Your task to perform on an android device: toggle sleep mode Image 0: 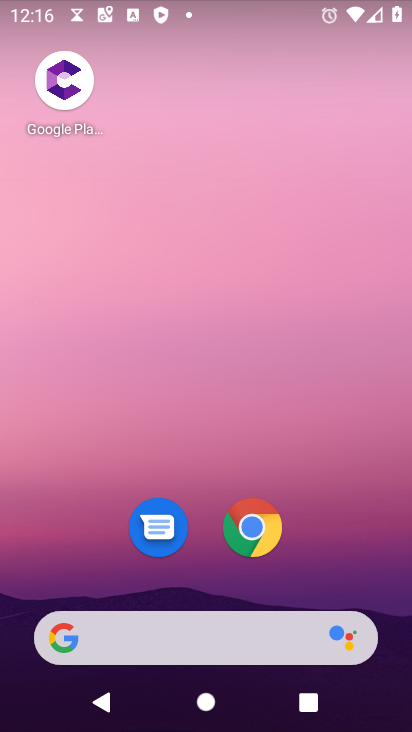
Step 0: drag from (312, 588) to (312, 77)
Your task to perform on an android device: toggle sleep mode Image 1: 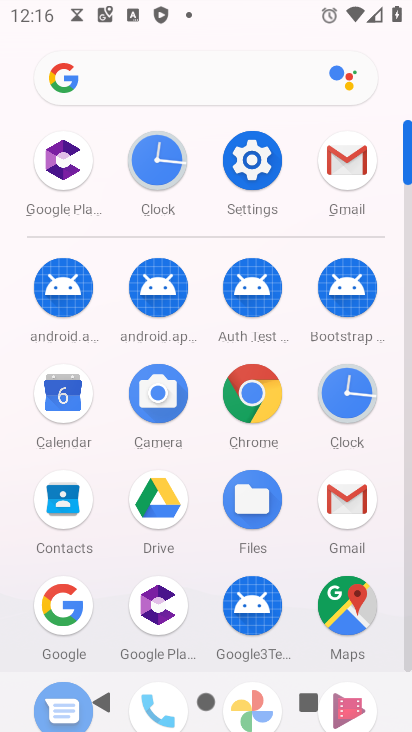
Step 1: click (242, 156)
Your task to perform on an android device: toggle sleep mode Image 2: 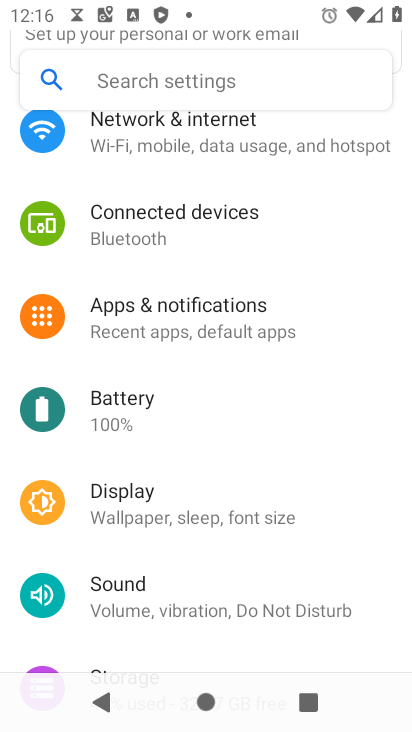
Step 2: drag from (197, 565) to (226, 344)
Your task to perform on an android device: toggle sleep mode Image 3: 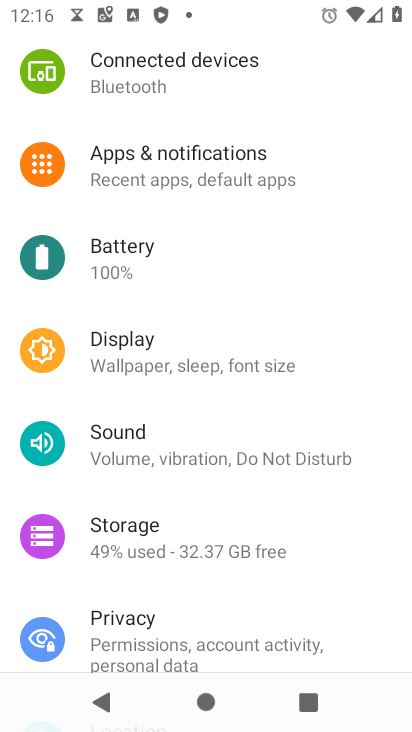
Step 3: click (193, 359)
Your task to perform on an android device: toggle sleep mode Image 4: 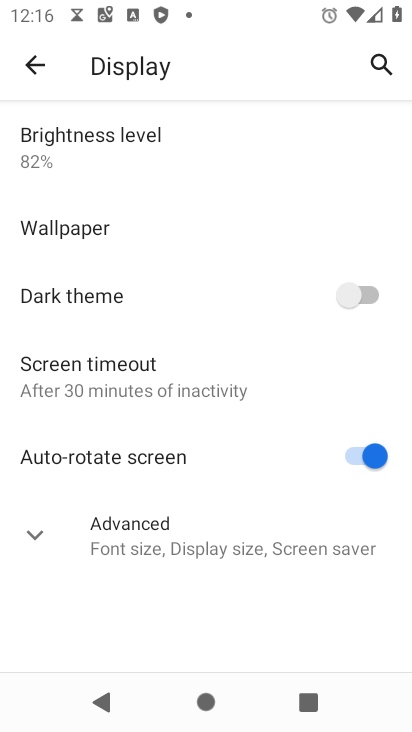
Step 4: click (230, 552)
Your task to perform on an android device: toggle sleep mode Image 5: 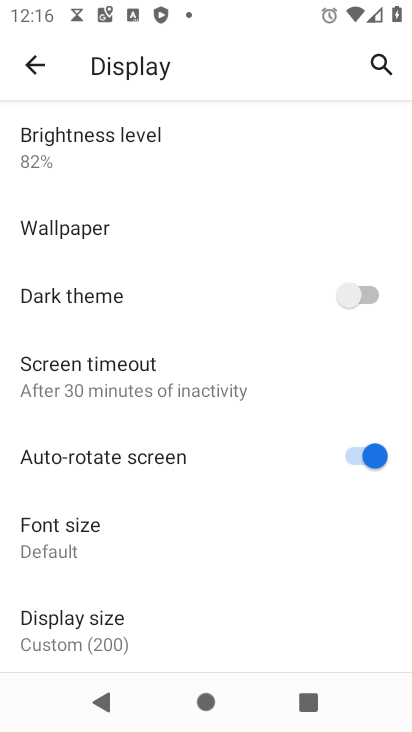
Step 5: task complete